Your task to perform on an android device: How much does the Samsung TV cost? Image 0: 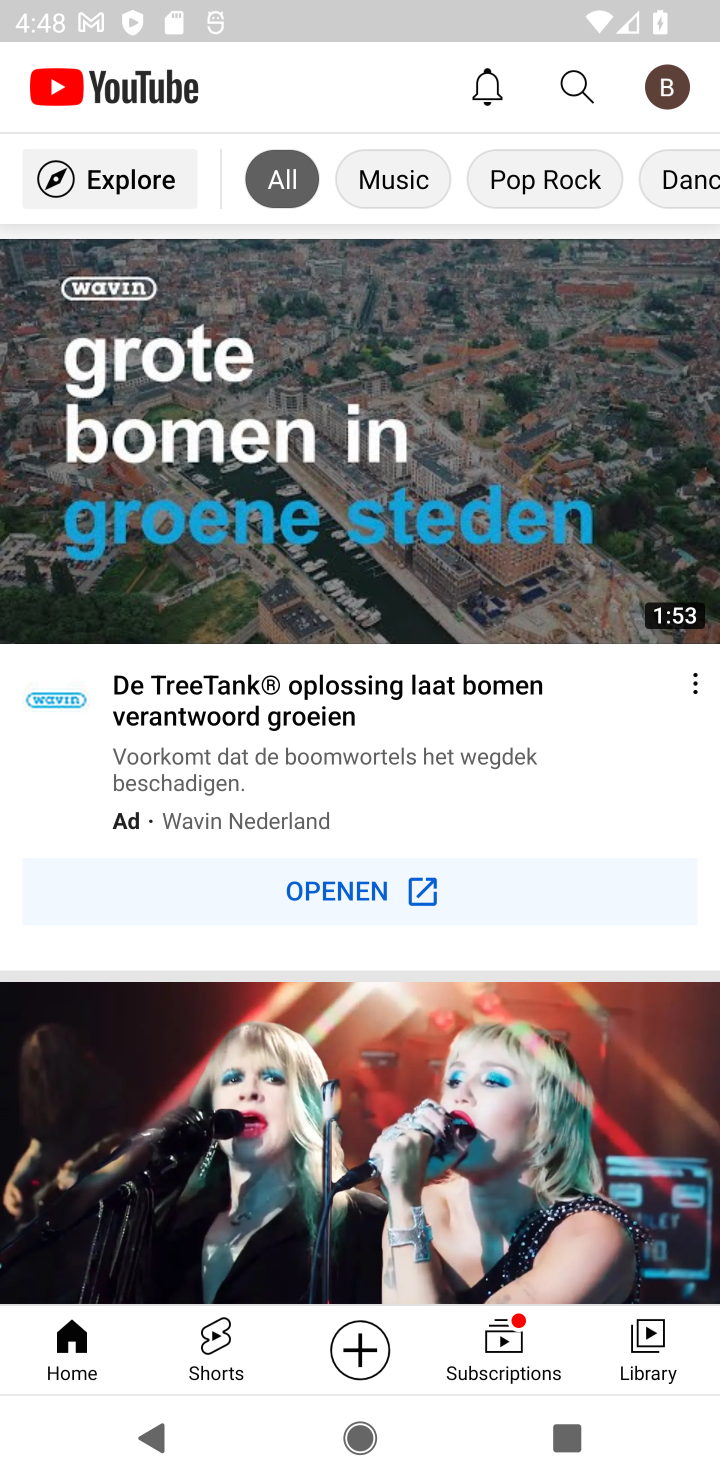
Step 0: press home button
Your task to perform on an android device: How much does the Samsung TV cost? Image 1: 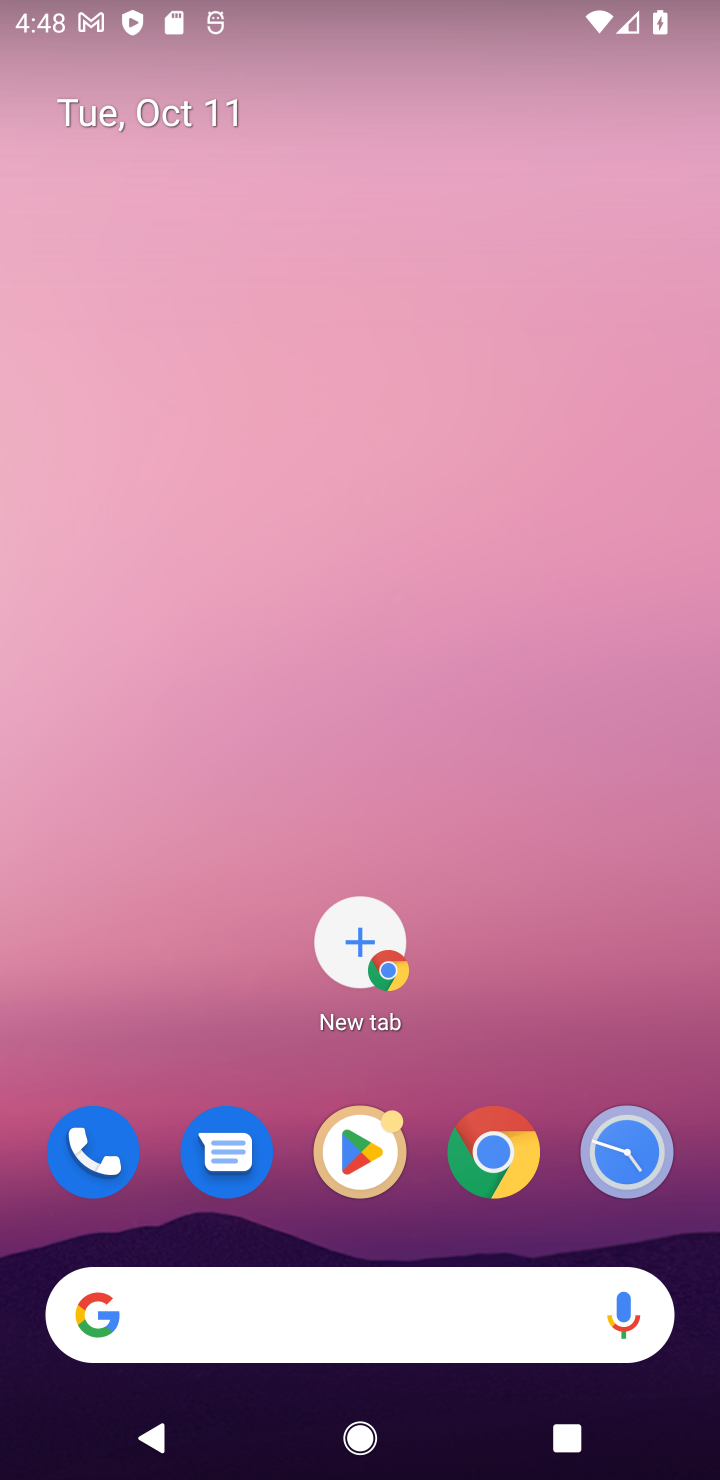
Step 1: click (487, 1164)
Your task to perform on an android device: How much does the Samsung TV cost? Image 2: 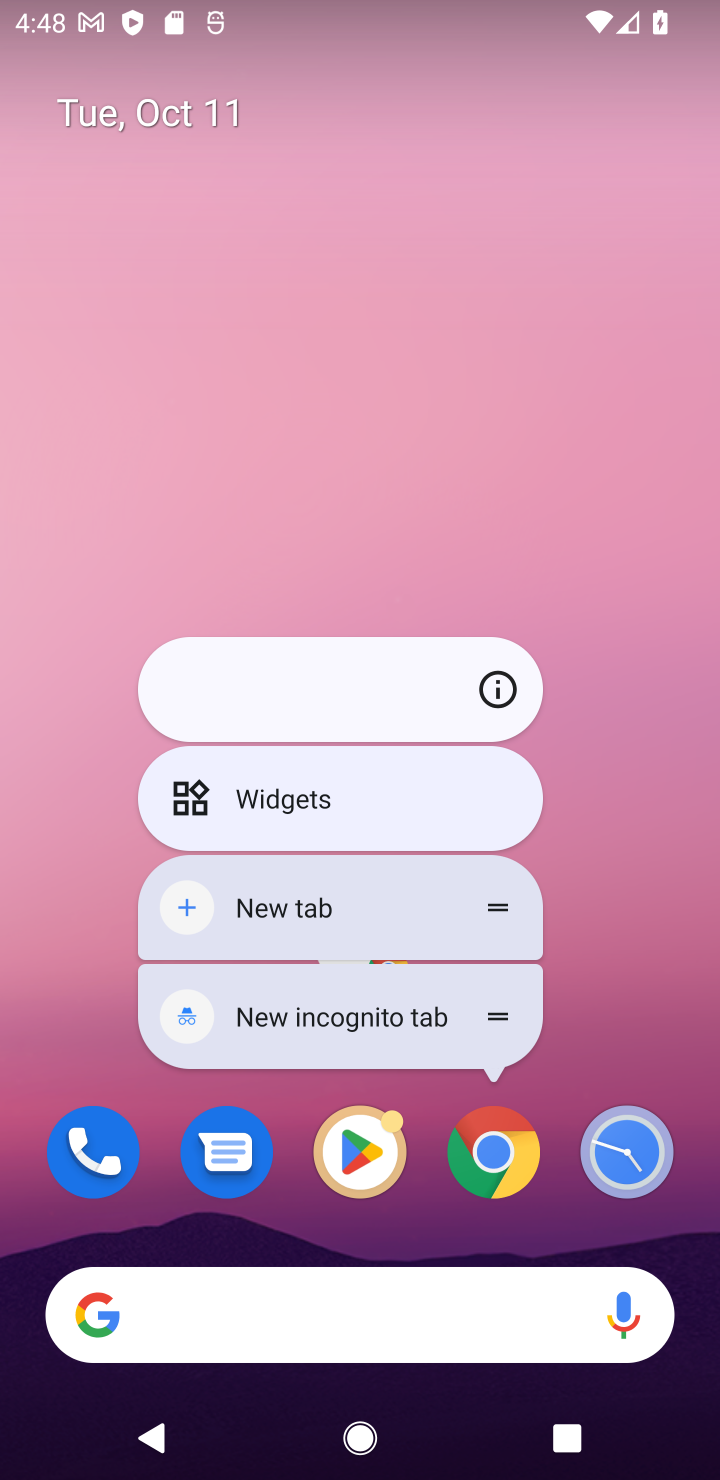
Step 2: click (513, 1192)
Your task to perform on an android device: How much does the Samsung TV cost? Image 3: 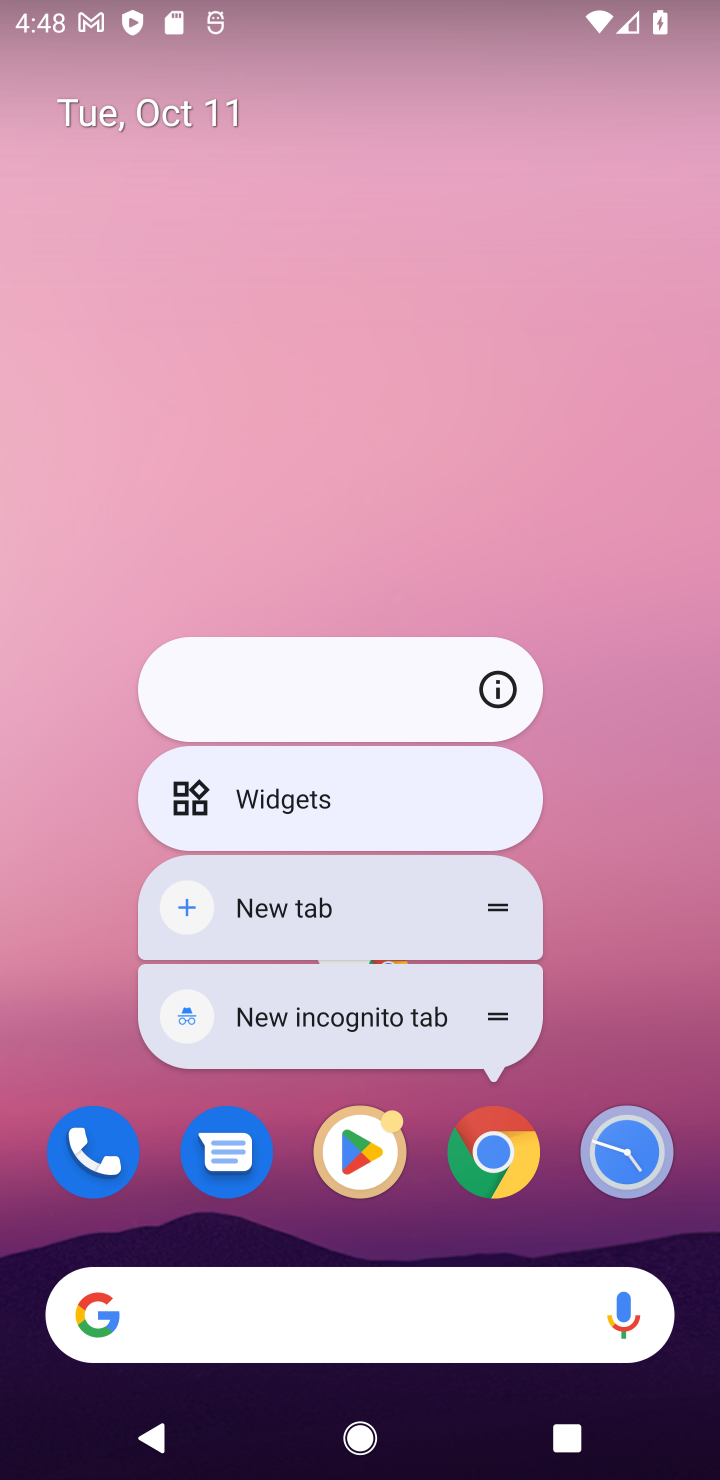
Step 3: drag from (306, 1360) to (460, 251)
Your task to perform on an android device: How much does the Samsung TV cost? Image 4: 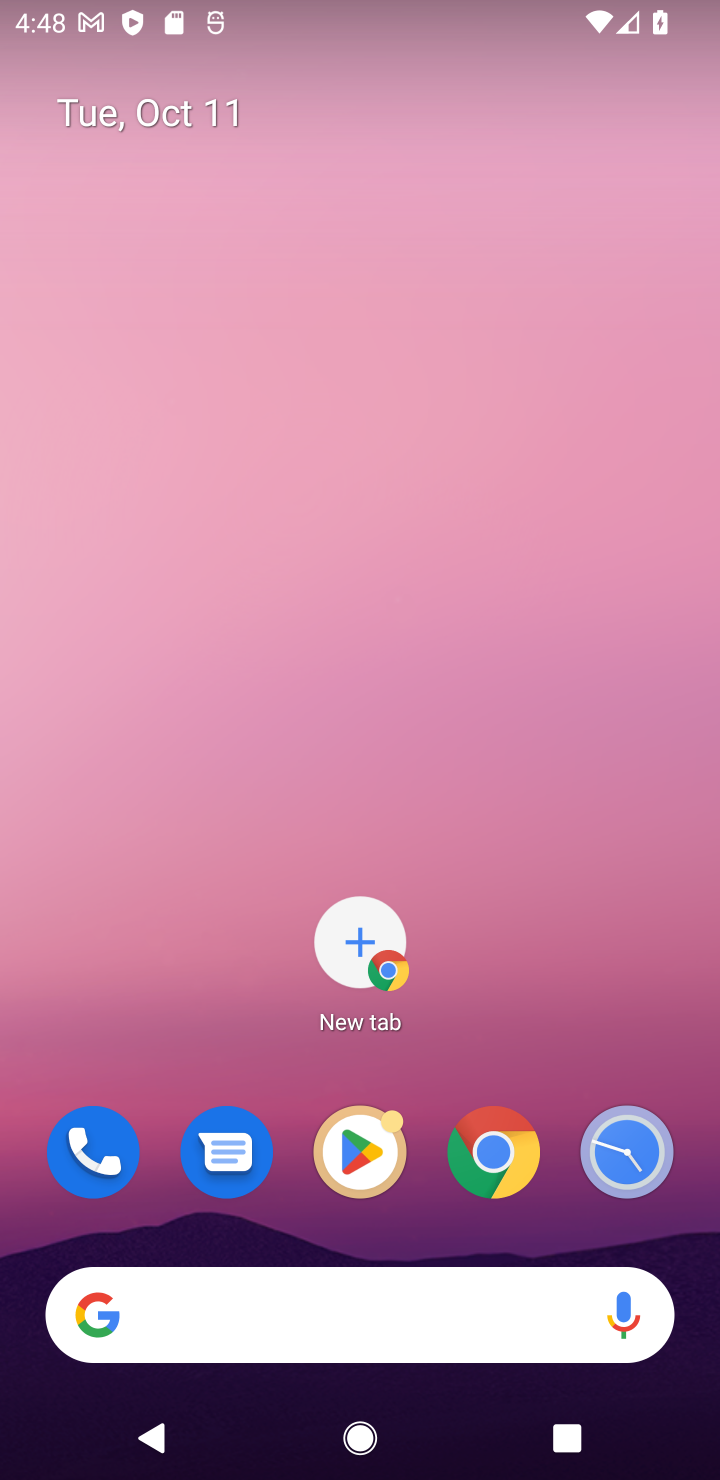
Step 4: drag from (368, 1191) to (403, 60)
Your task to perform on an android device: How much does the Samsung TV cost? Image 5: 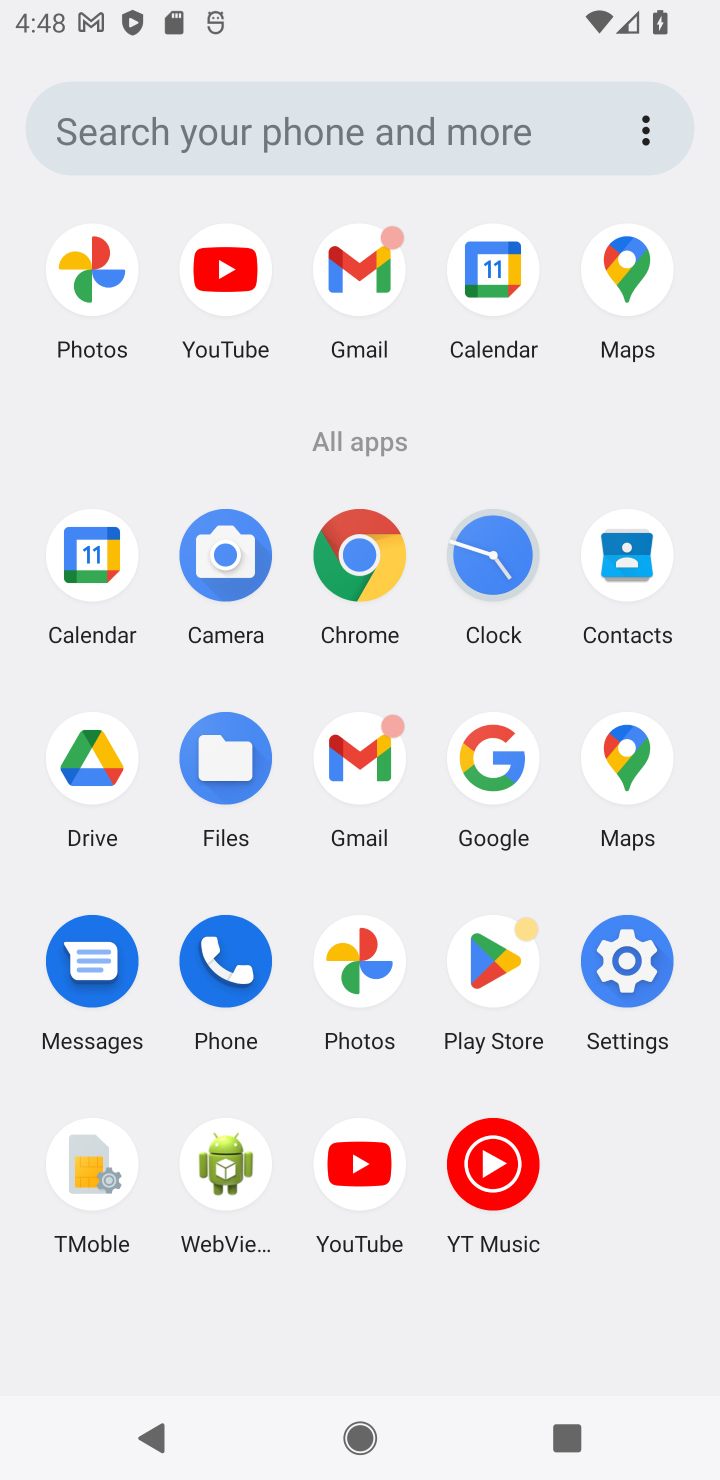
Step 5: click (353, 566)
Your task to perform on an android device: How much does the Samsung TV cost? Image 6: 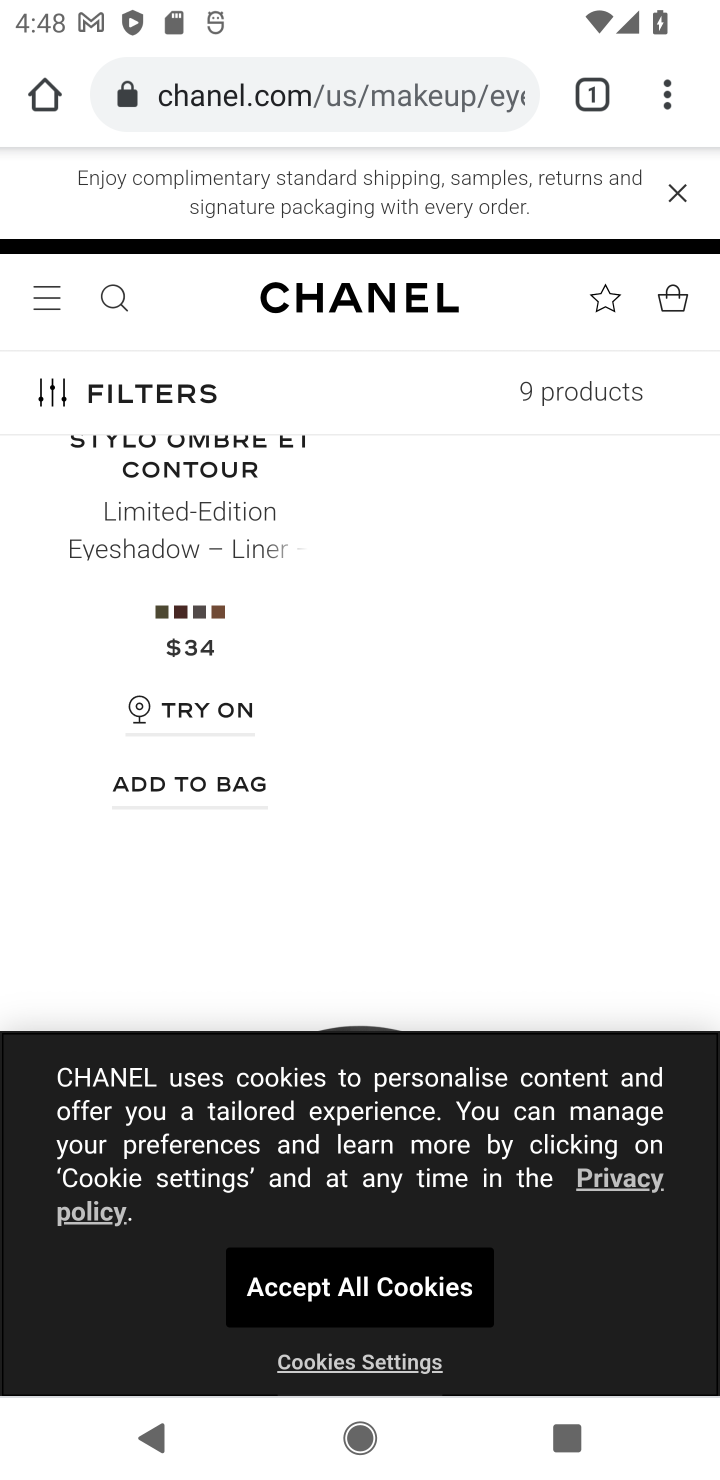
Step 6: click (316, 99)
Your task to perform on an android device: How much does the Samsung TV cost? Image 7: 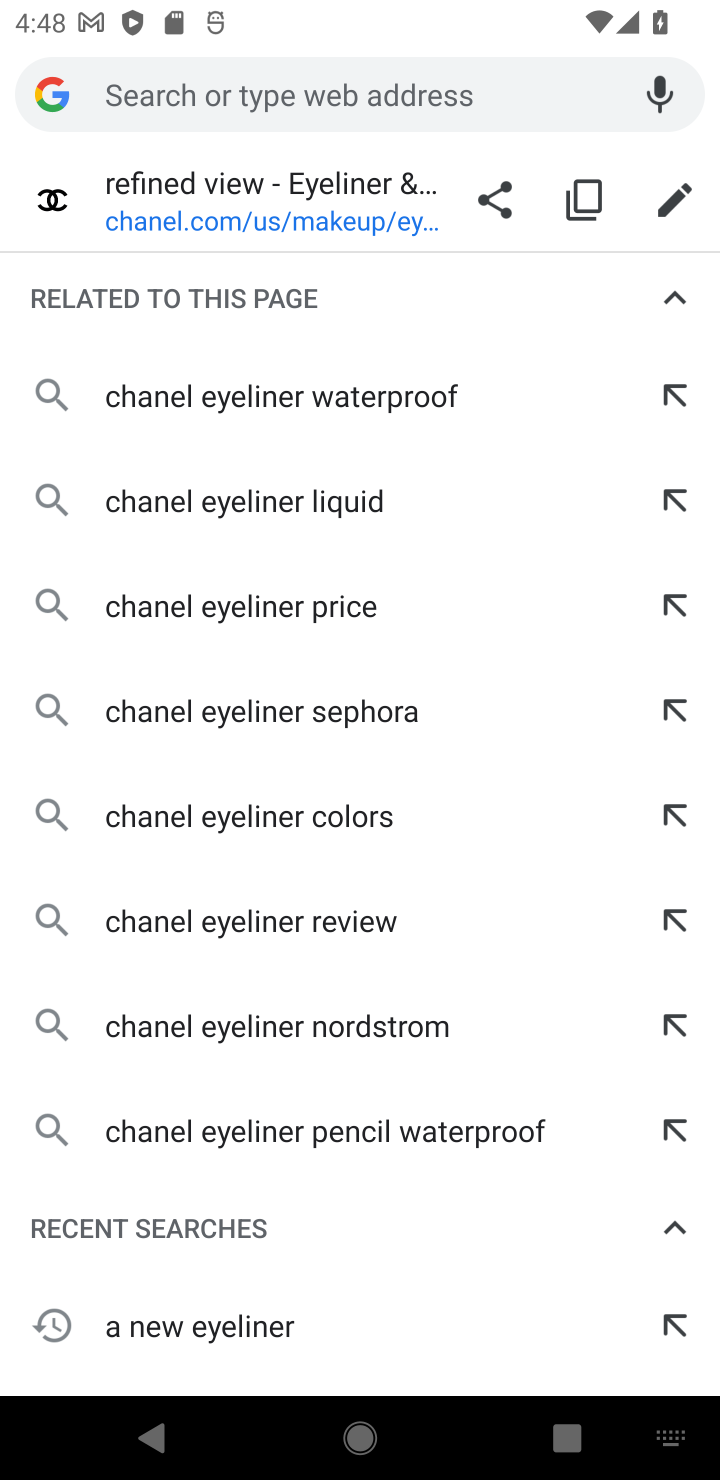
Step 7: type "How much does the Samsung TV cost?"
Your task to perform on an android device: How much does the Samsung TV cost? Image 8: 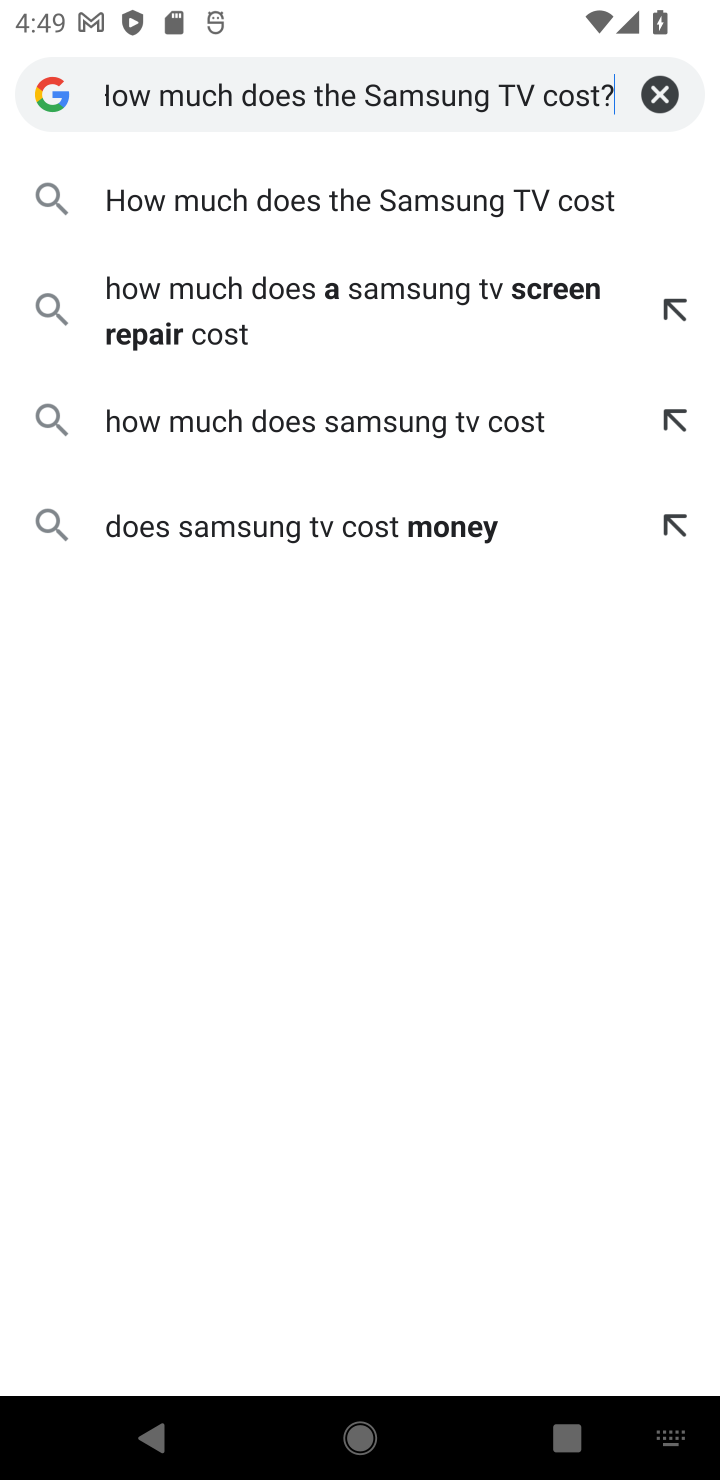
Step 8: type ""
Your task to perform on an android device: How much does the Samsung TV cost? Image 9: 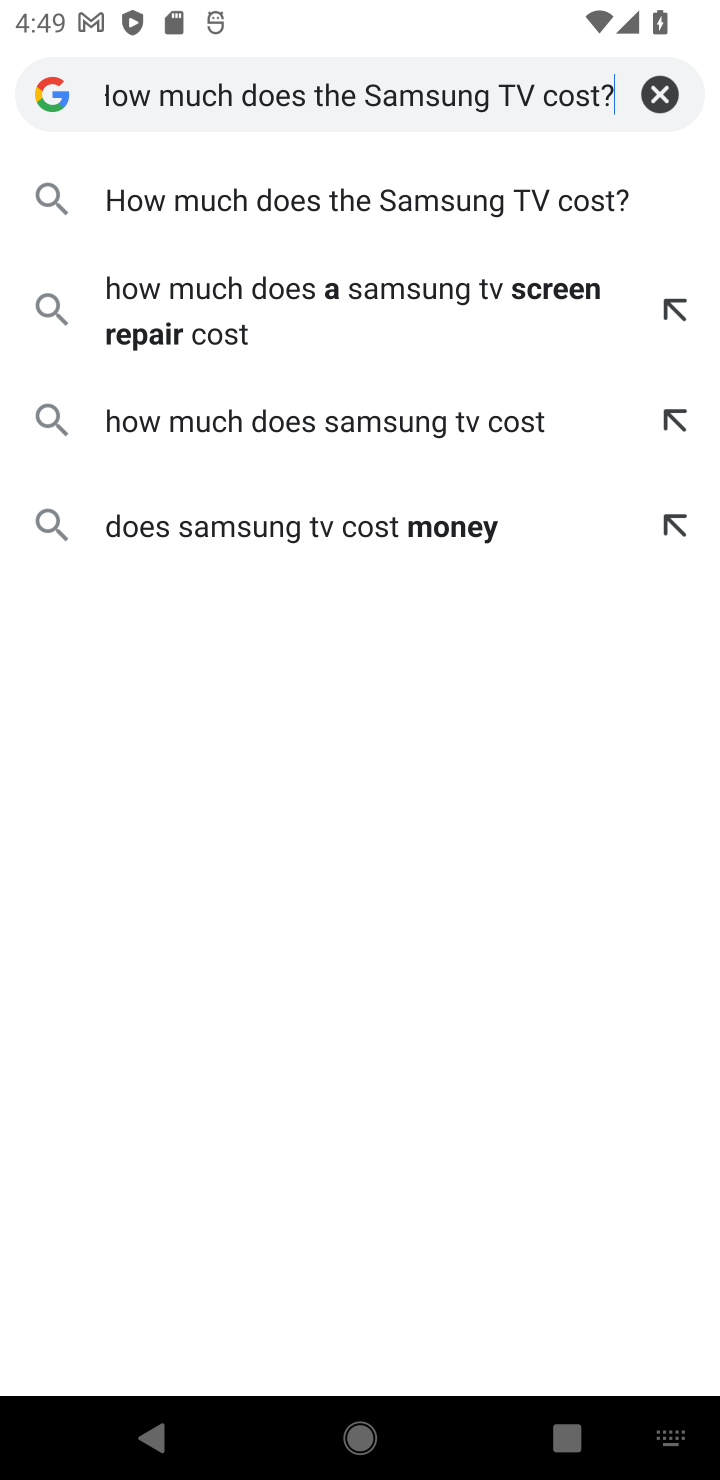
Step 9: press enter
Your task to perform on an android device: How much does the Samsung TV cost? Image 10: 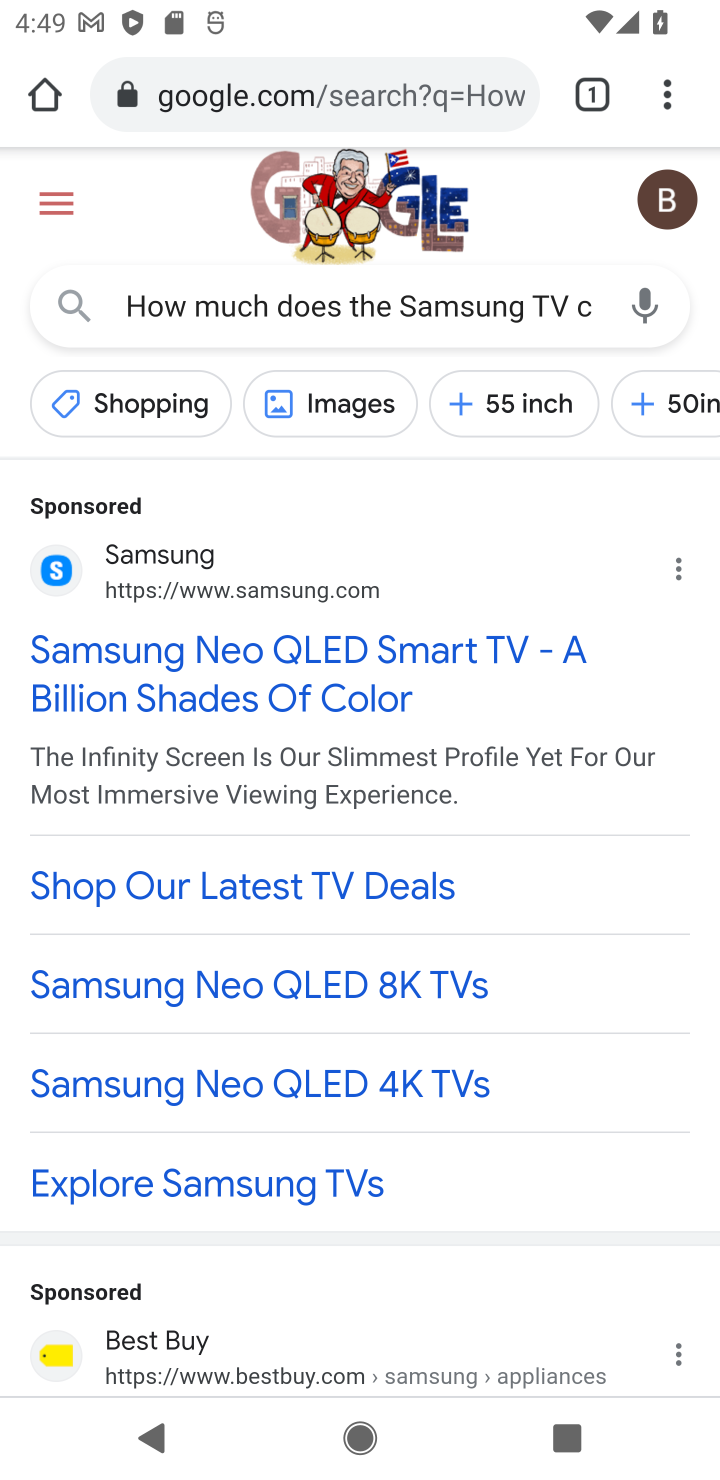
Step 10: click (420, 688)
Your task to perform on an android device: How much does the Samsung TV cost? Image 11: 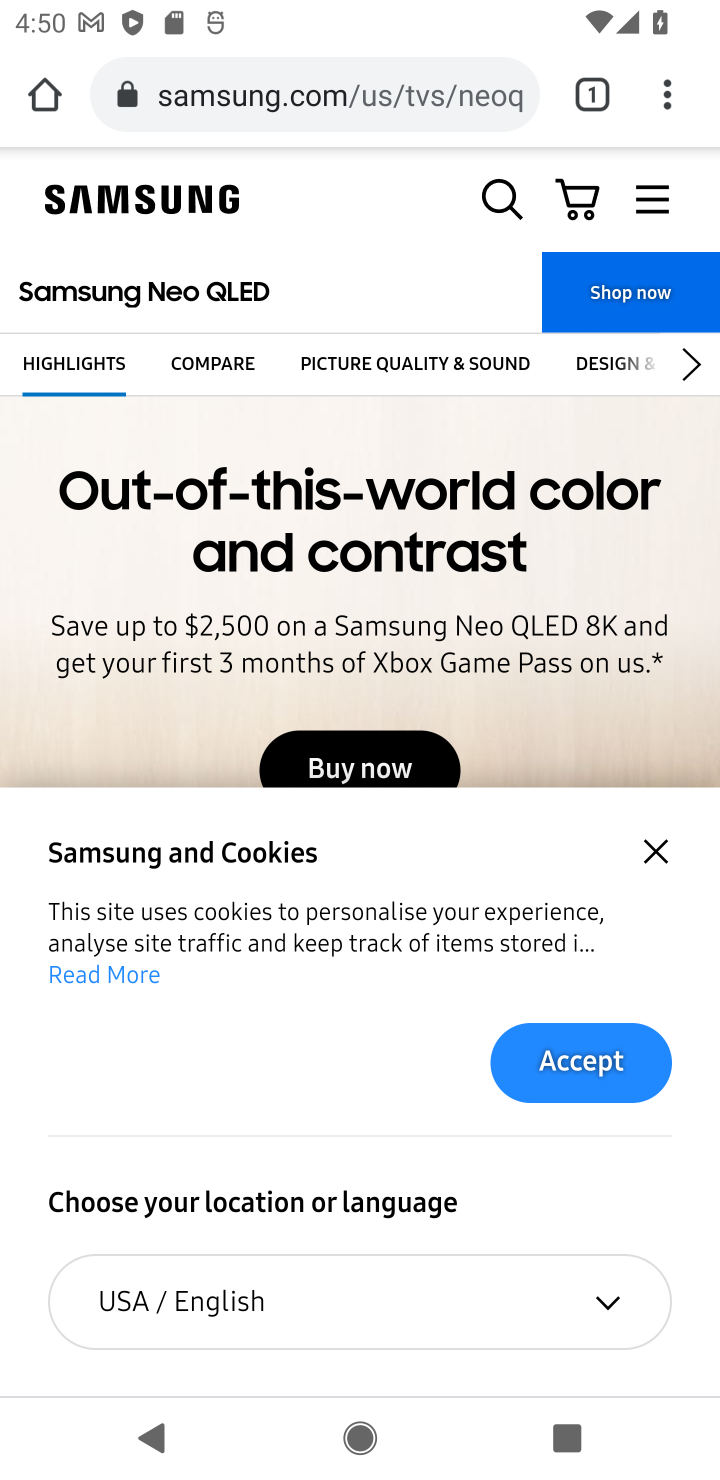
Step 11: click (654, 836)
Your task to perform on an android device: How much does the Samsung TV cost? Image 12: 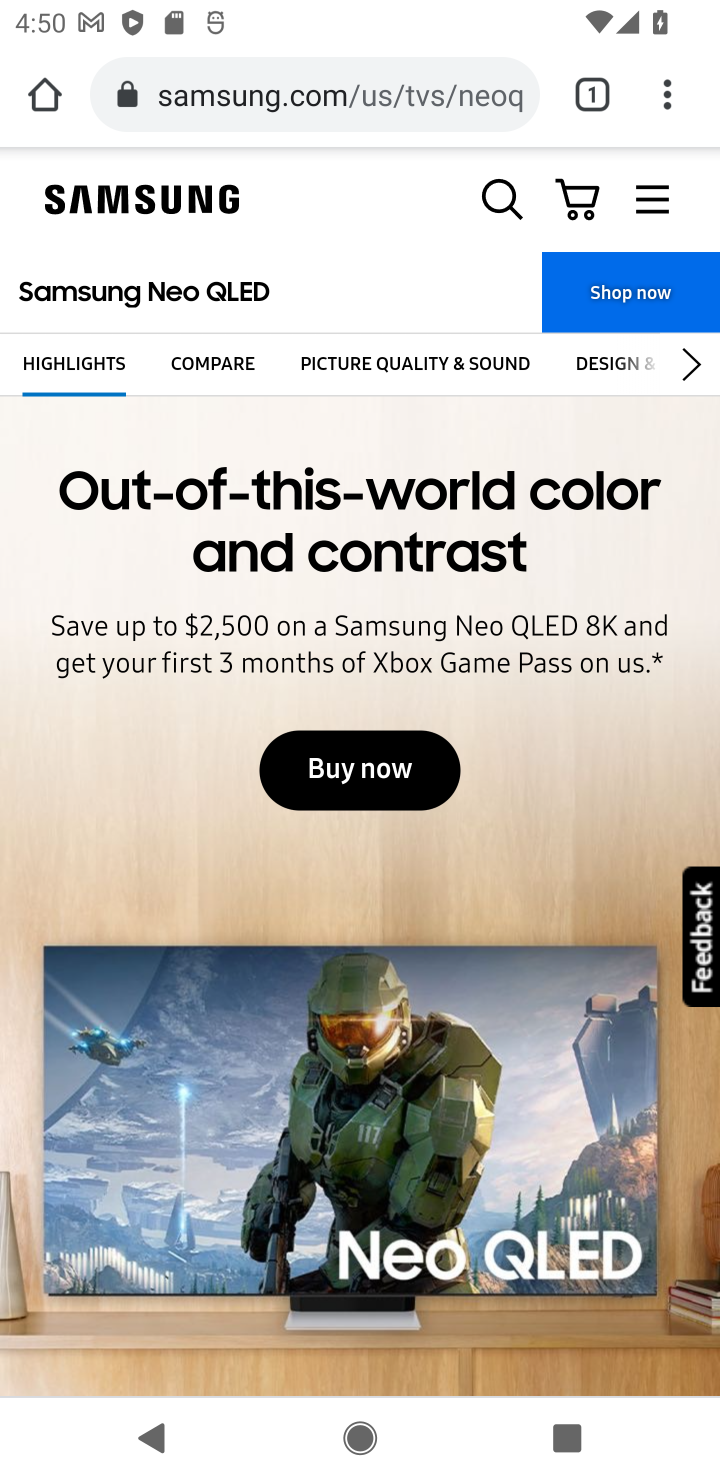
Step 12: drag from (402, 572) to (582, 589)
Your task to perform on an android device: How much does the Samsung TV cost? Image 13: 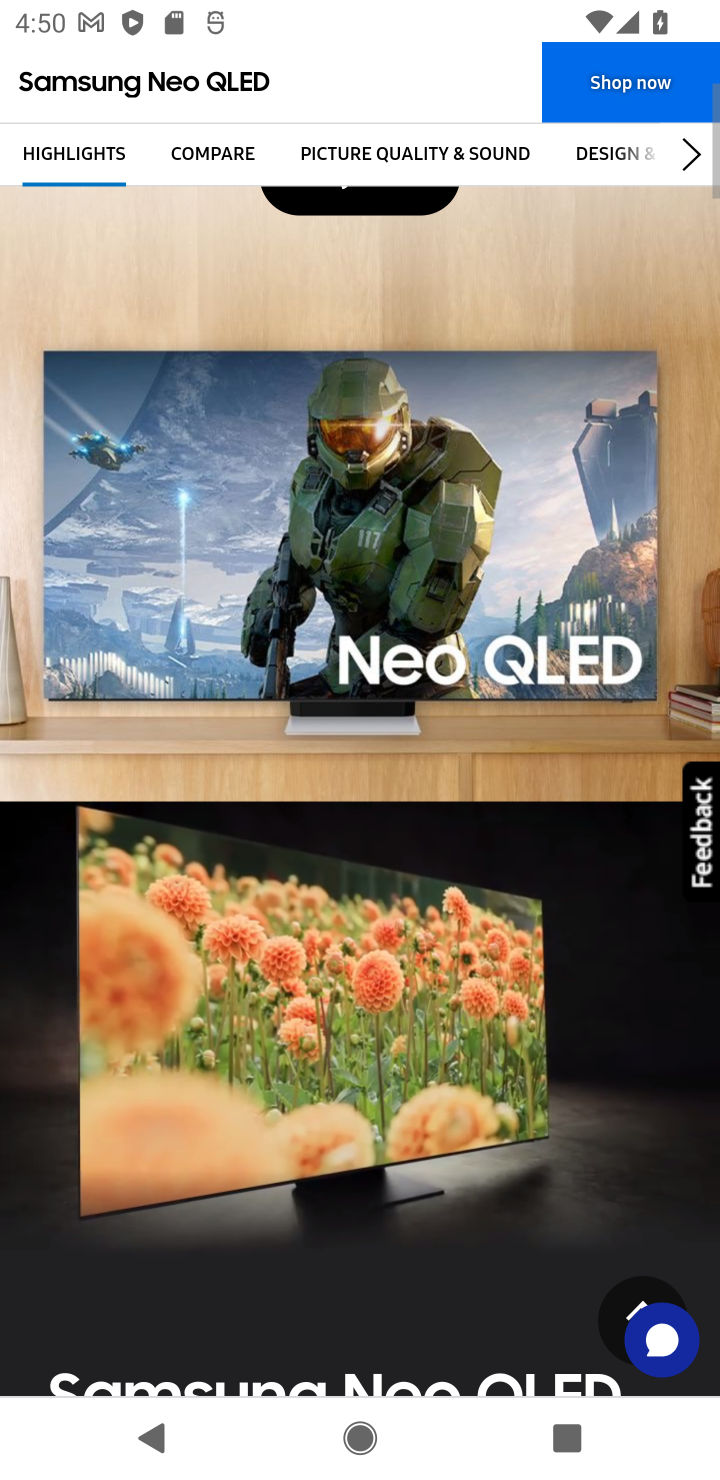
Step 13: click (465, 588)
Your task to perform on an android device: How much does the Samsung TV cost? Image 14: 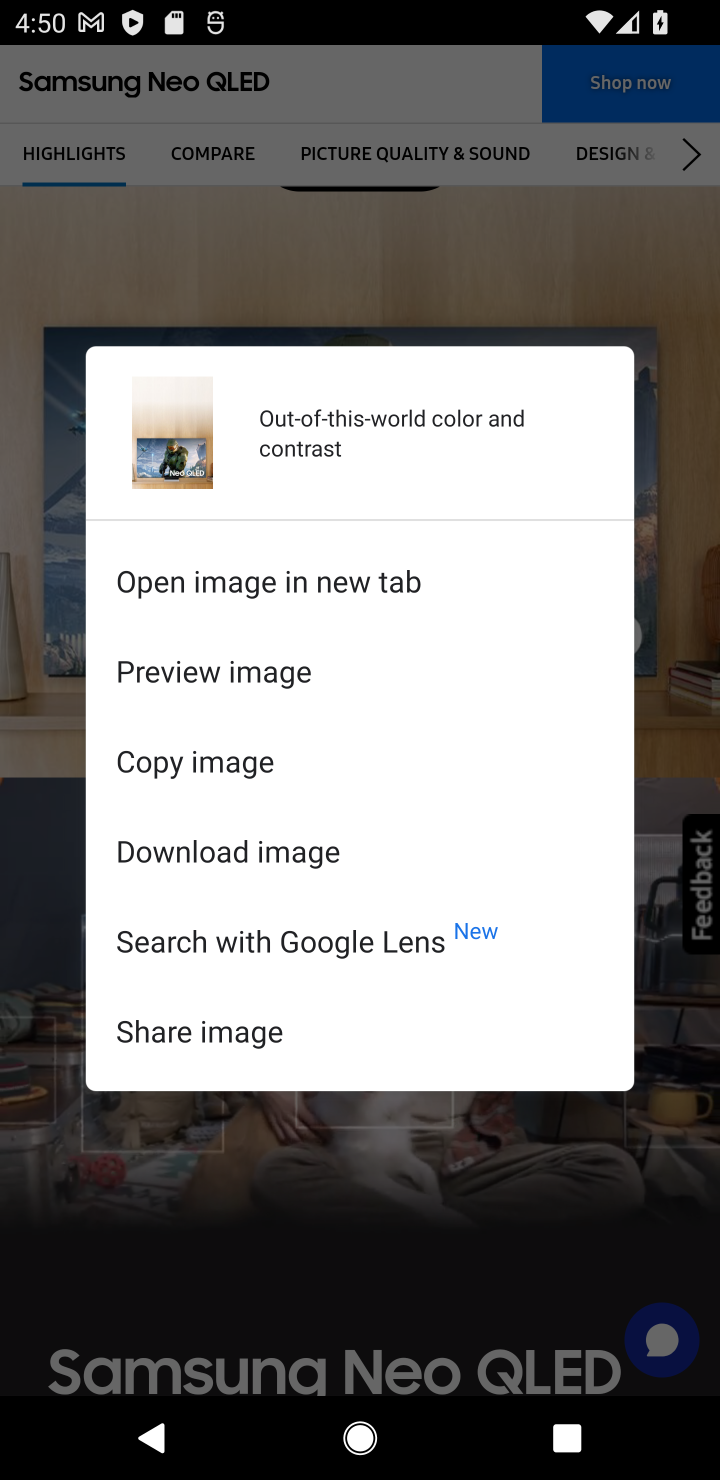
Step 14: click (408, 211)
Your task to perform on an android device: How much does the Samsung TV cost? Image 15: 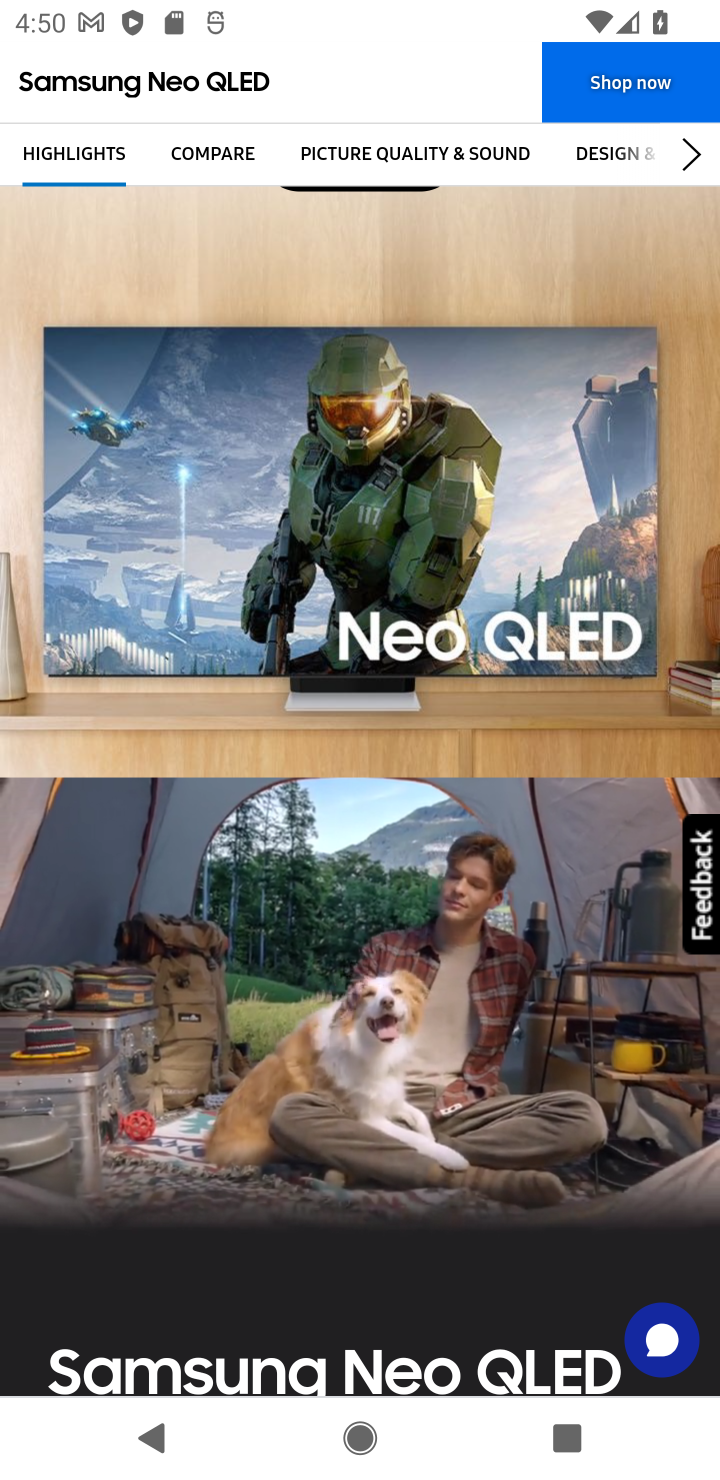
Step 15: click (400, 357)
Your task to perform on an android device: How much does the Samsung TV cost? Image 16: 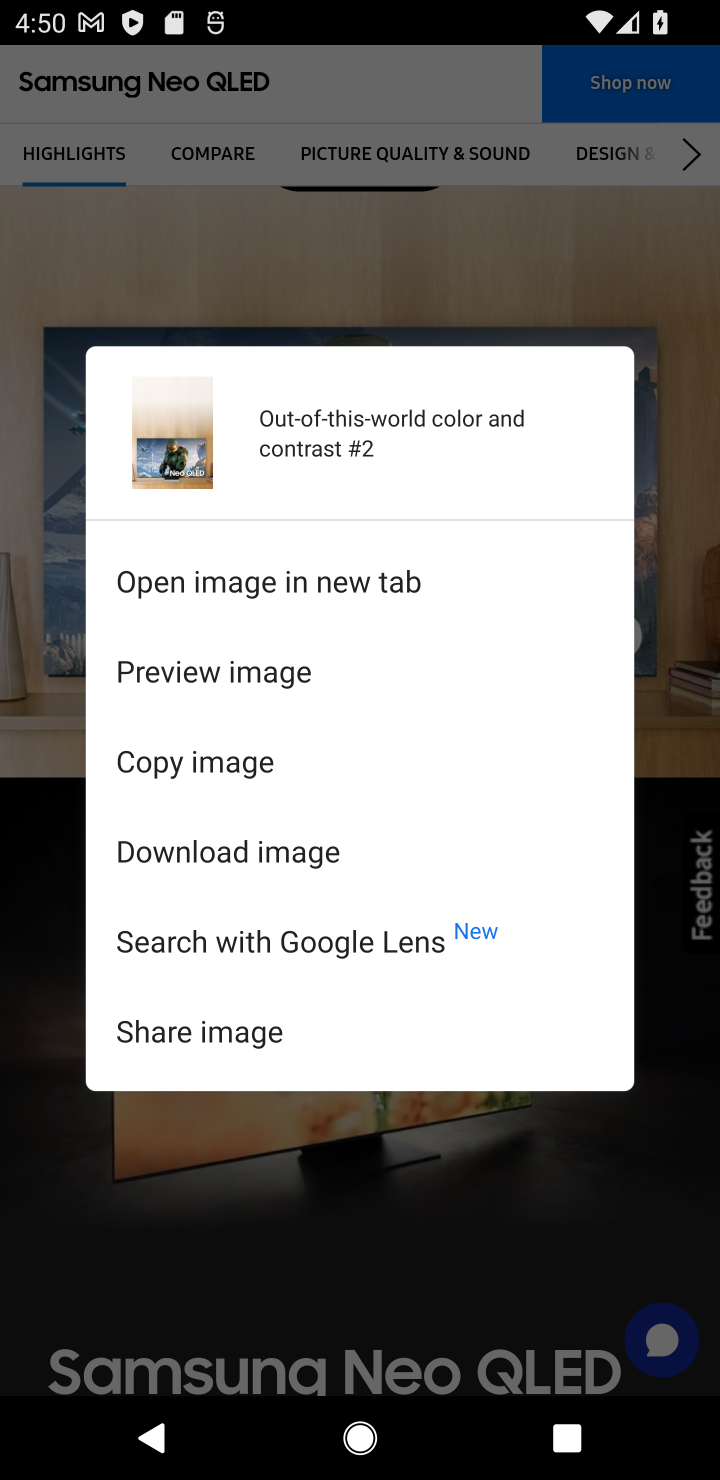
Step 16: click (292, 955)
Your task to perform on an android device: How much does the Samsung TV cost? Image 17: 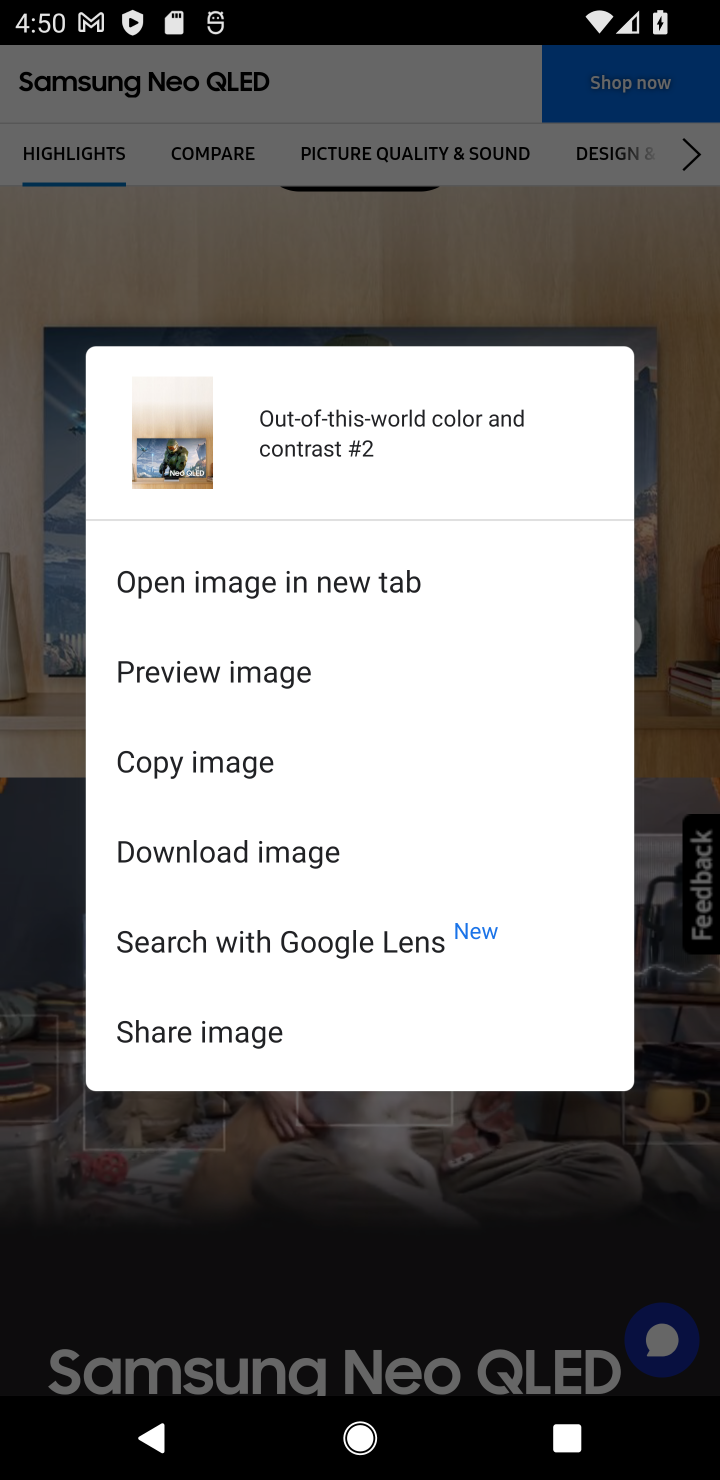
Step 17: click (346, 233)
Your task to perform on an android device: How much does the Samsung TV cost? Image 18: 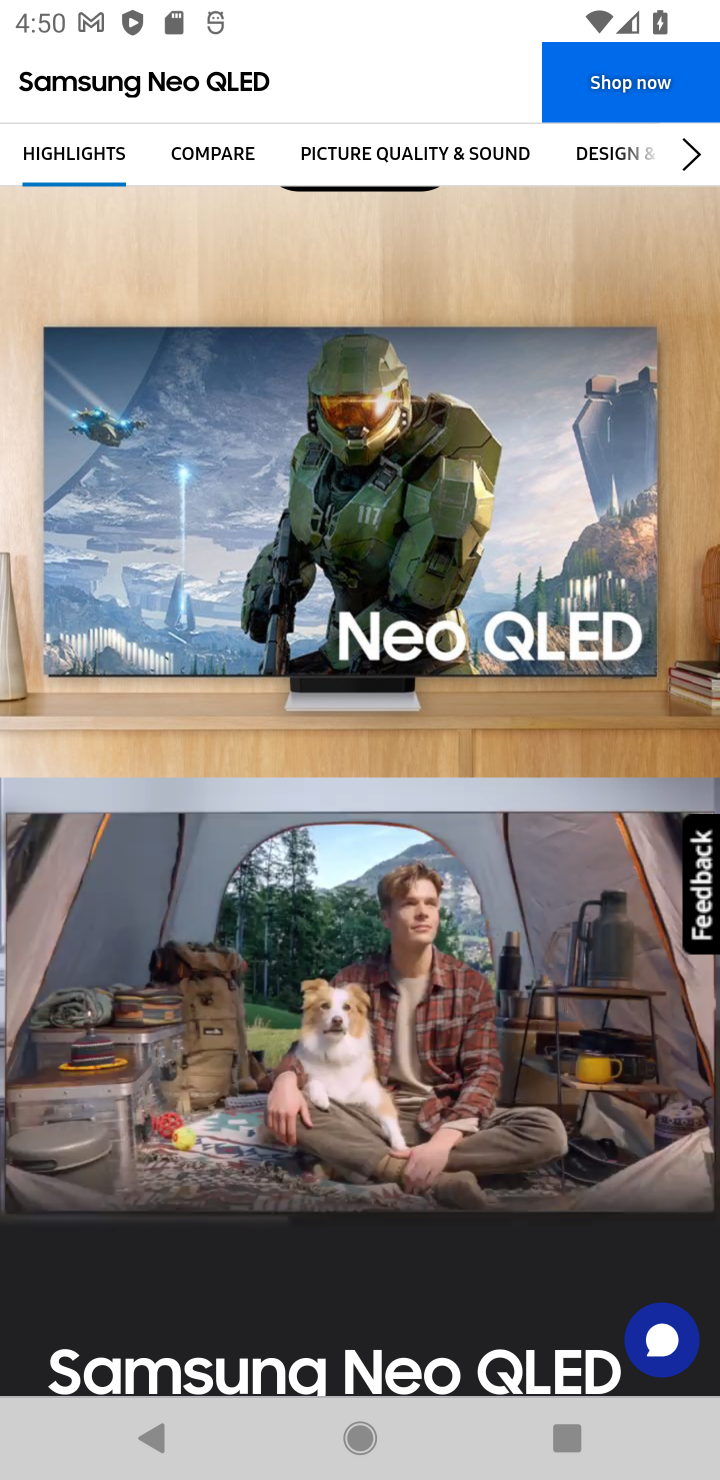
Step 18: task complete